Your task to perform on an android device: Search for sushi restaurants on Maps Image 0: 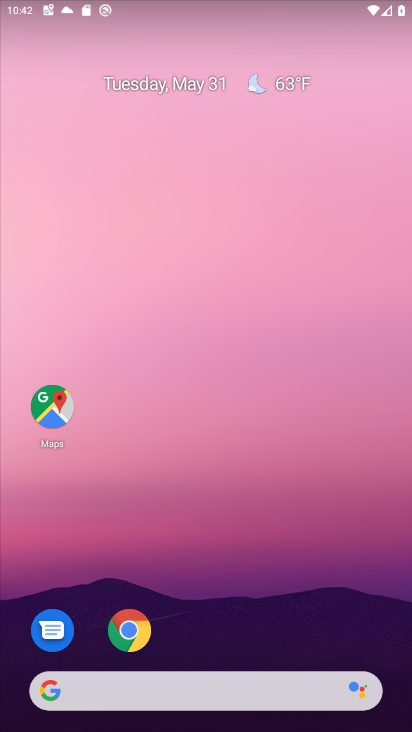
Step 0: click (52, 408)
Your task to perform on an android device: Search for sushi restaurants on Maps Image 1: 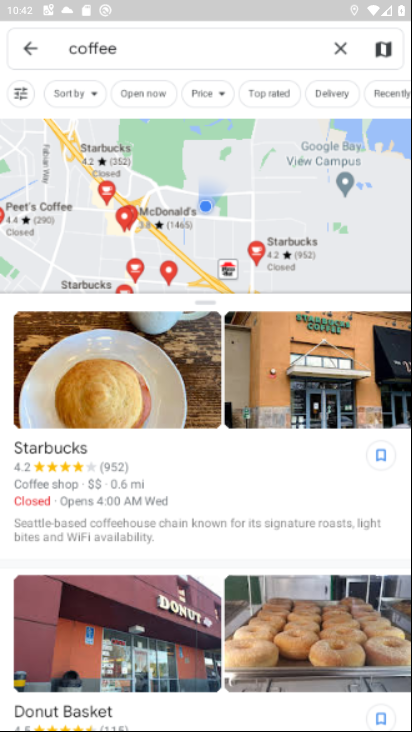
Step 1: click (170, 52)
Your task to perform on an android device: Search for sushi restaurants on Maps Image 2: 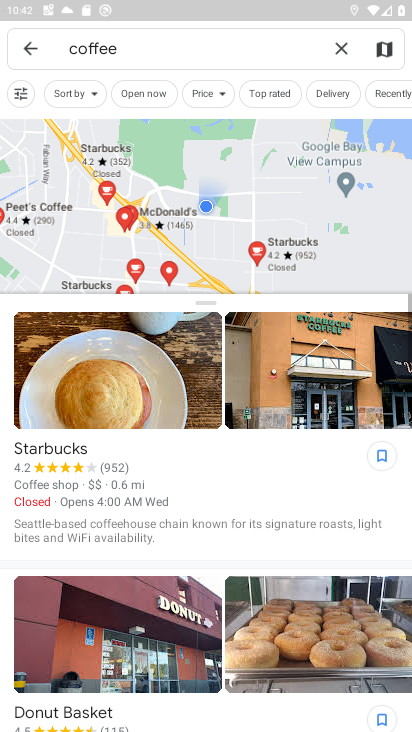
Step 2: click (338, 45)
Your task to perform on an android device: Search for sushi restaurants on Maps Image 3: 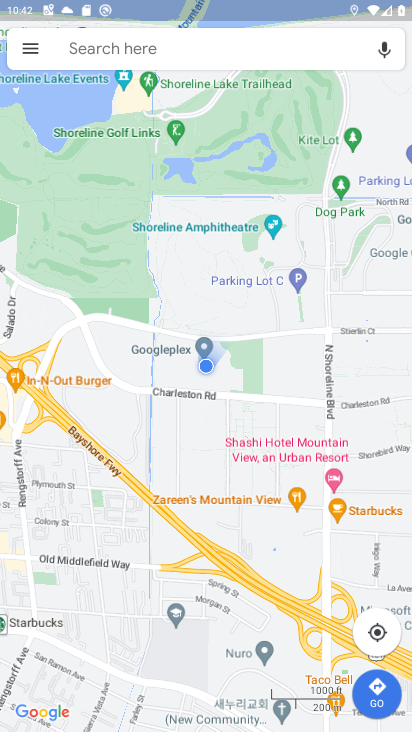
Step 3: click (218, 45)
Your task to perform on an android device: Search for sushi restaurants on Maps Image 4: 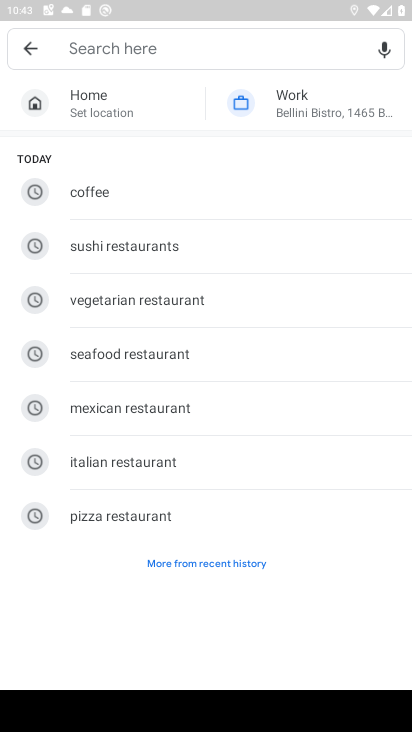
Step 4: click (141, 254)
Your task to perform on an android device: Search for sushi restaurants on Maps Image 5: 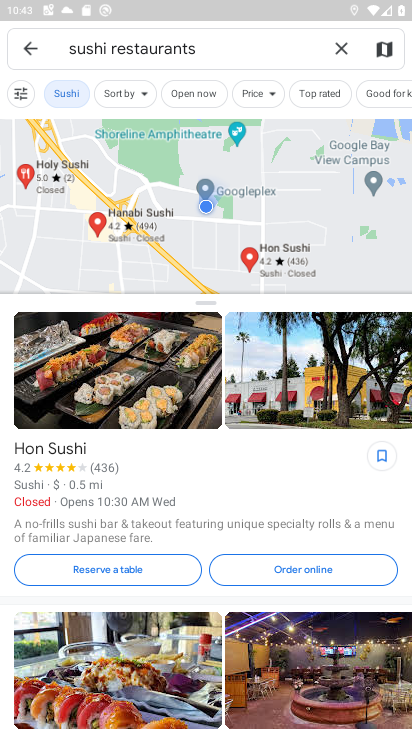
Step 5: task complete